Your task to perform on an android device: What is the news today? Image 0: 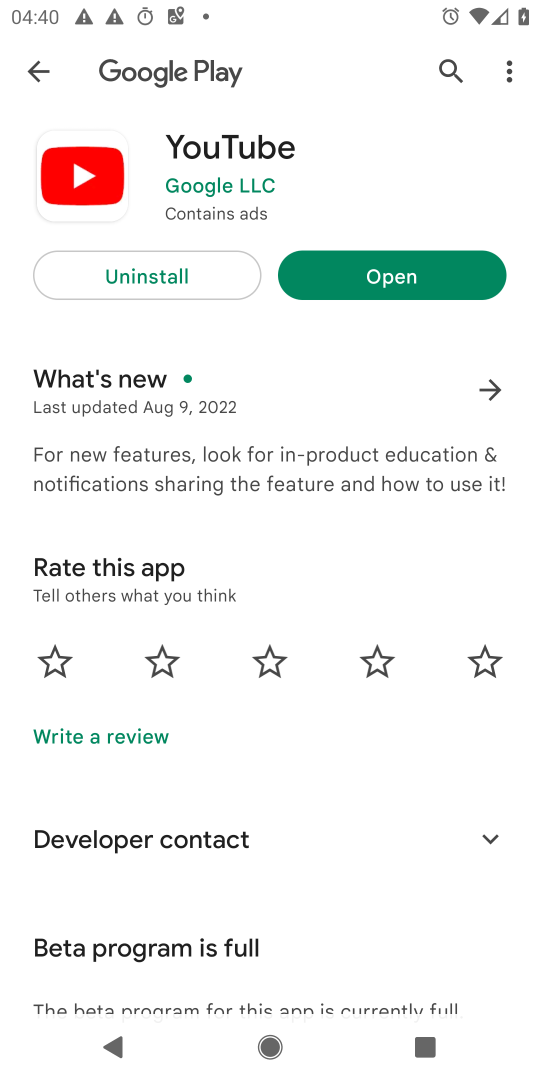
Step 0: press home button
Your task to perform on an android device: What is the news today? Image 1: 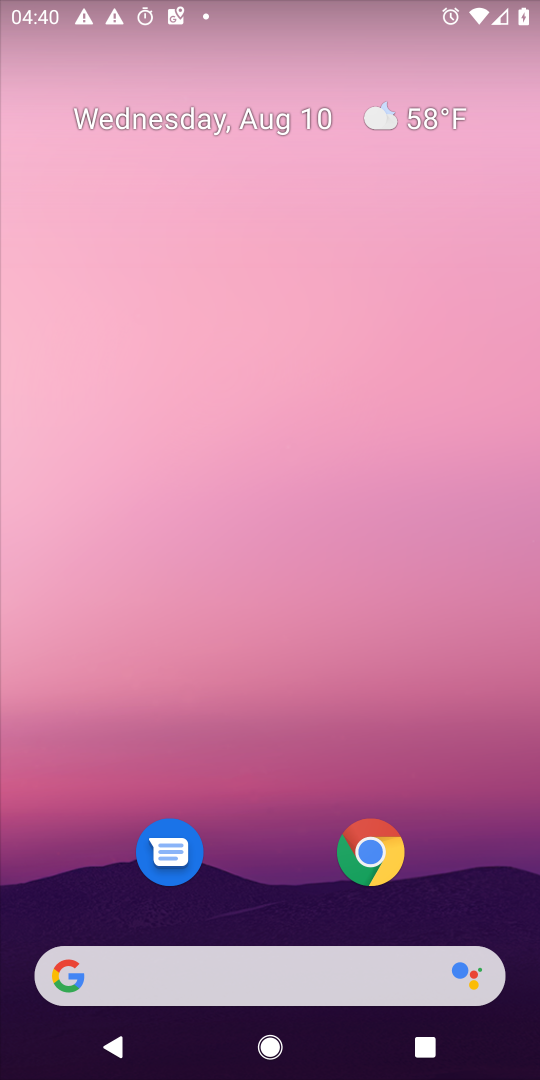
Step 1: drag from (314, 864) to (287, 24)
Your task to perform on an android device: What is the news today? Image 2: 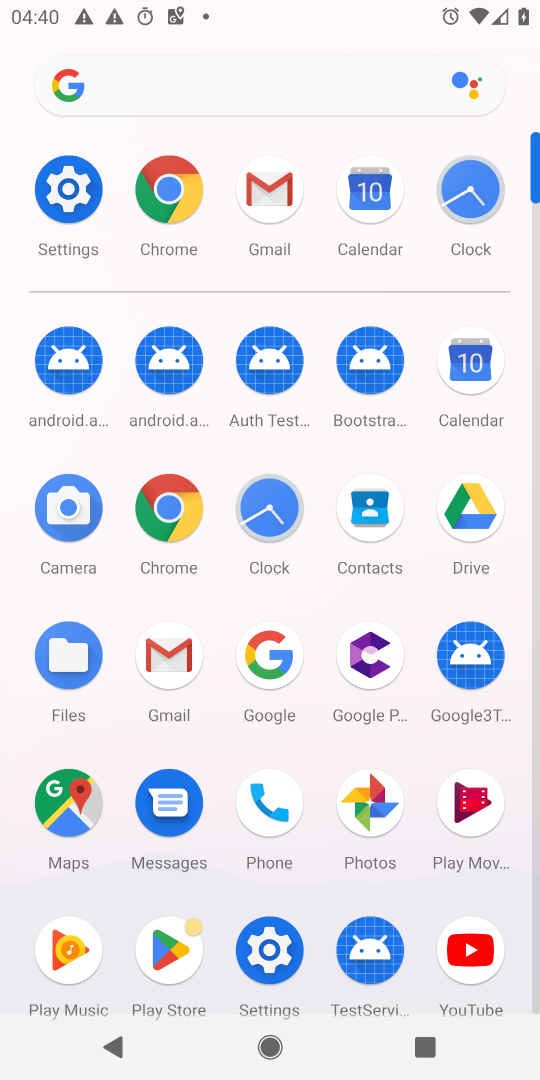
Step 2: click (182, 519)
Your task to perform on an android device: What is the news today? Image 3: 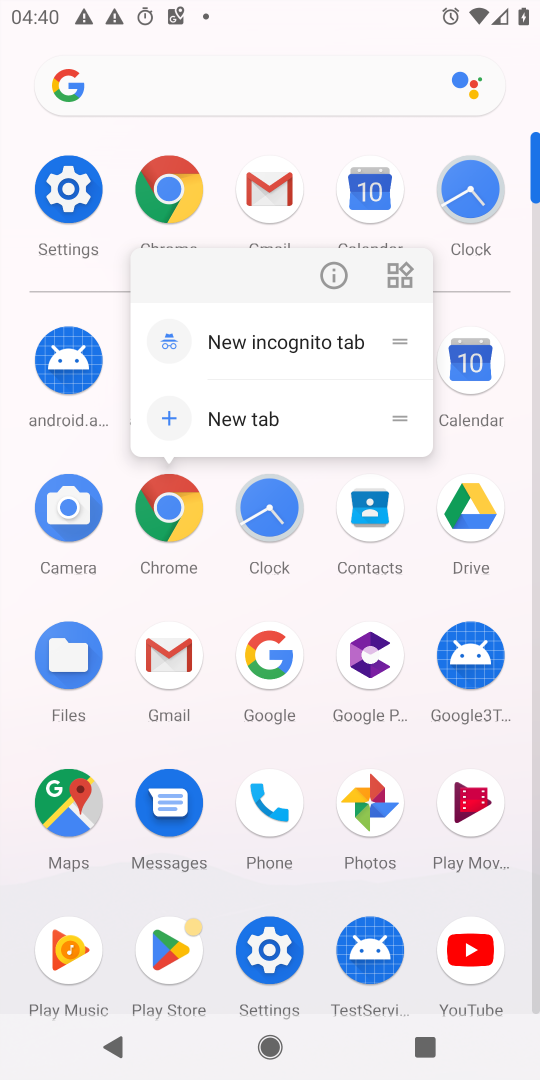
Step 3: click (163, 511)
Your task to perform on an android device: What is the news today? Image 4: 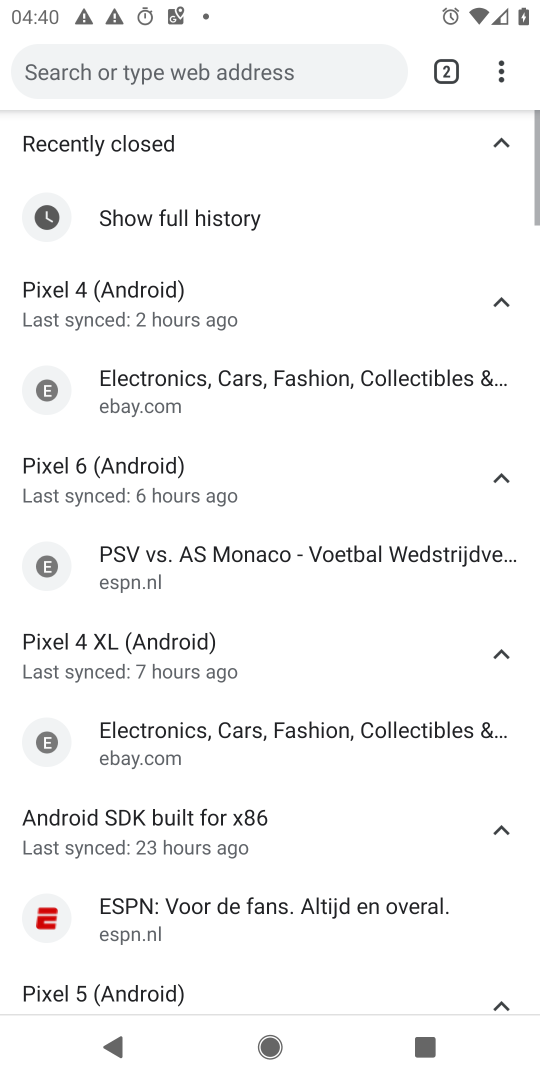
Step 4: click (239, 92)
Your task to perform on an android device: What is the news today? Image 5: 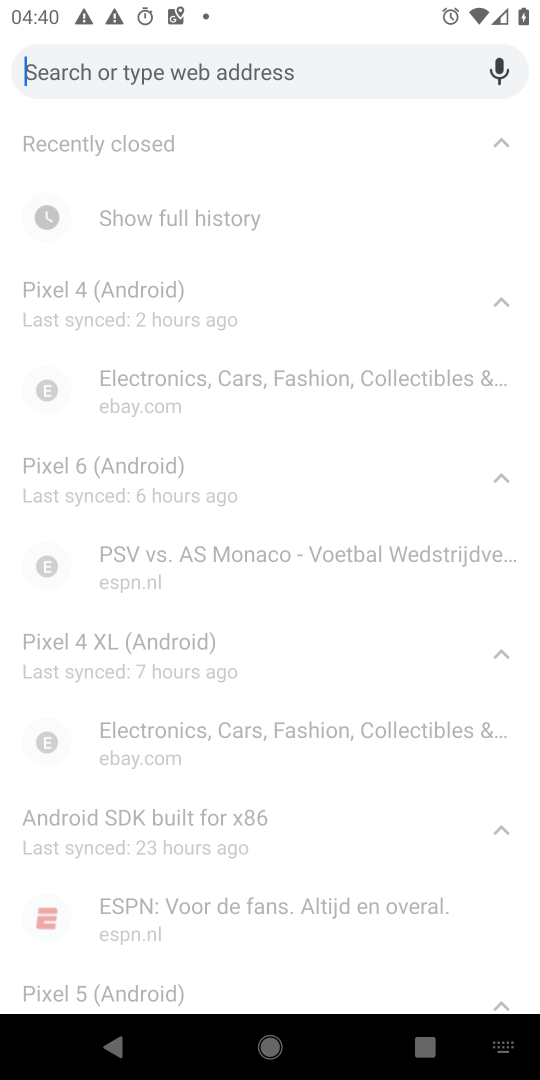
Step 5: type "news"
Your task to perform on an android device: What is the news today? Image 6: 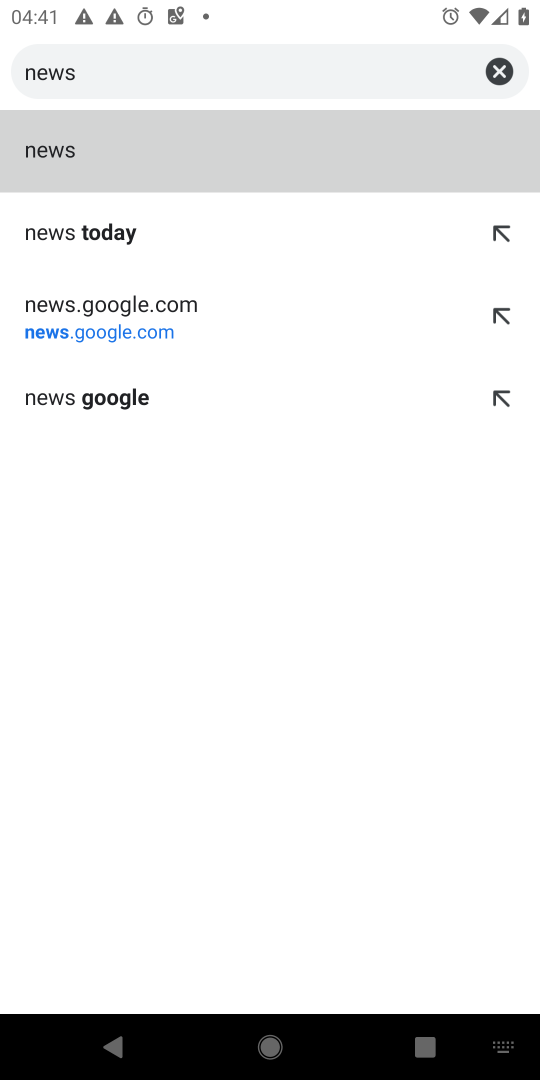
Step 6: click (63, 313)
Your task to perform on an android device: What is the news today? Image 7: 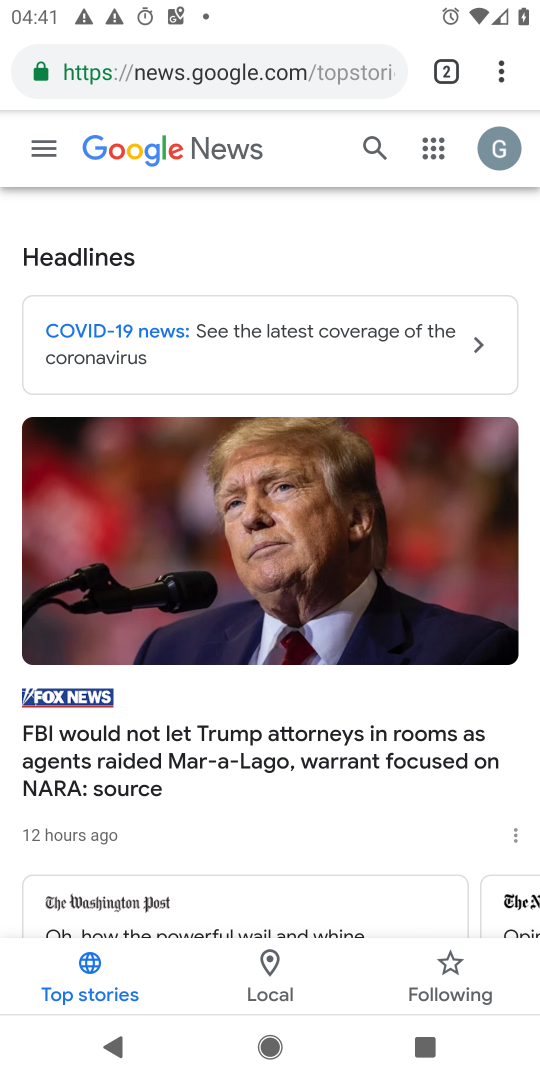
Step 7: task complete